Your task to perform on an android device: empty trash in google photos Image 0: 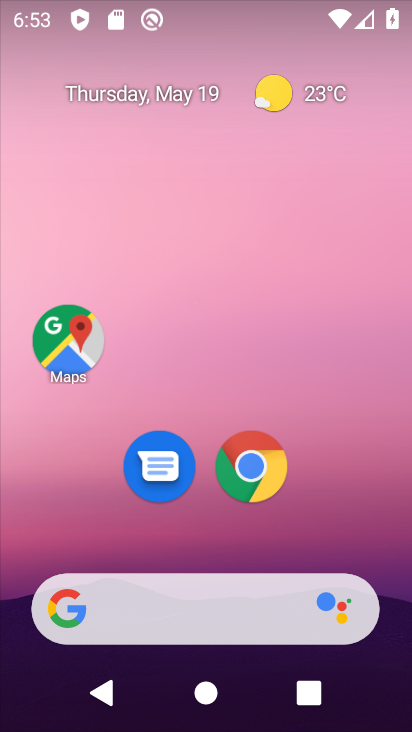
Step 0: drag from (372, 579) to (96, 329)
Your task to perform on an android device: empty trash in google photos Image 1: 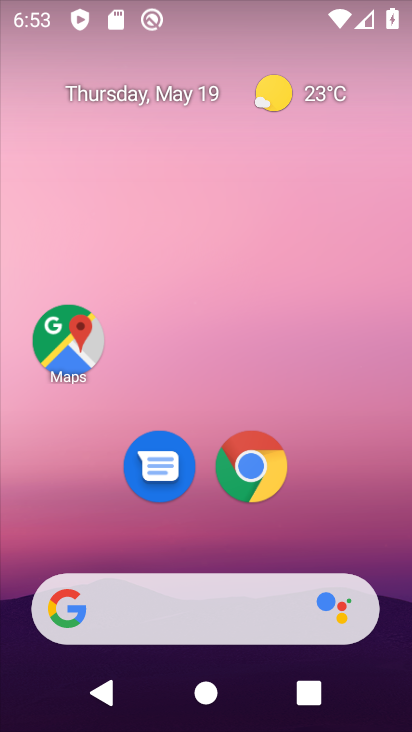
Step 1: drag from (333, 542) to (217, 3)
Your task to perform on an android device: empty trash in google photos Image 2: 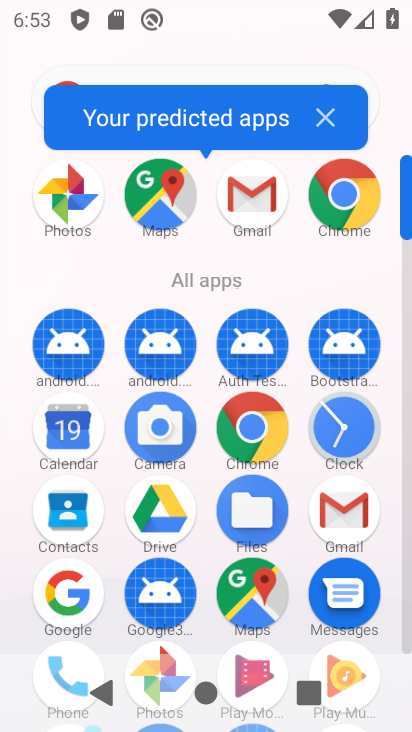
Step 2: drag from (210, 288) to (211, 130)
Your task to perform on an android device: empty trash in google photos Image 3: 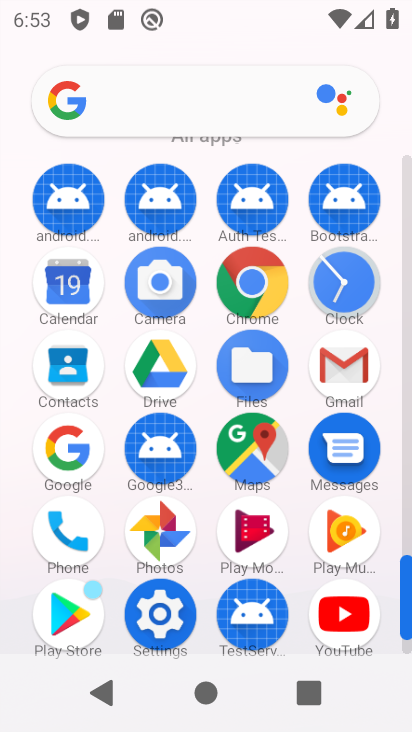
Step 3: click (150, 515)
Your task to perform on an android device: empty trash in google photos Image 4: 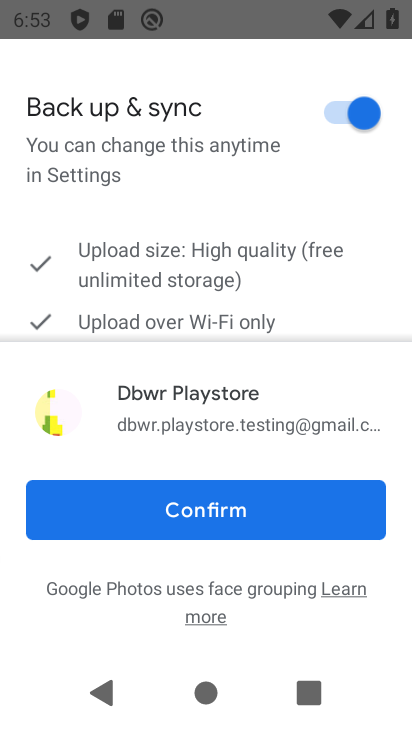
Step 4: click (172, 498)
Your task to perform on an android device: empty trash in google photos Image 5: 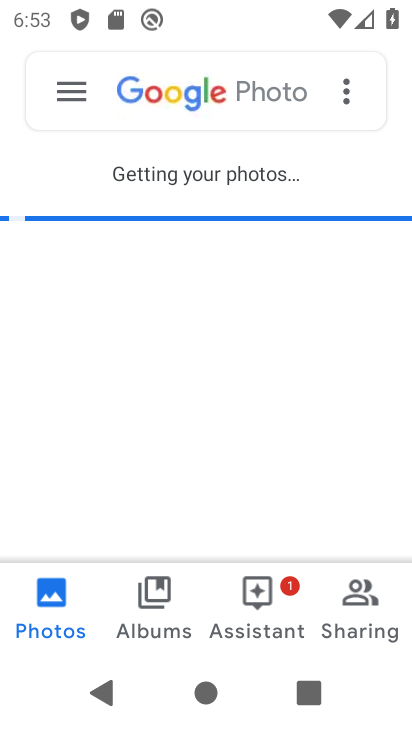
Step 5: click (69, 114)
Your task to perform on an android device: empty trash in google photos Image 6: 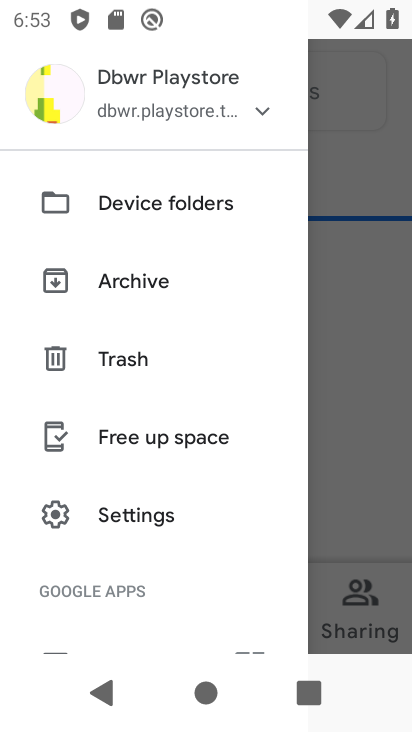
Step 6: click (107, 366)
Your task to perform on an android device: empty trash in google photos Image 7: 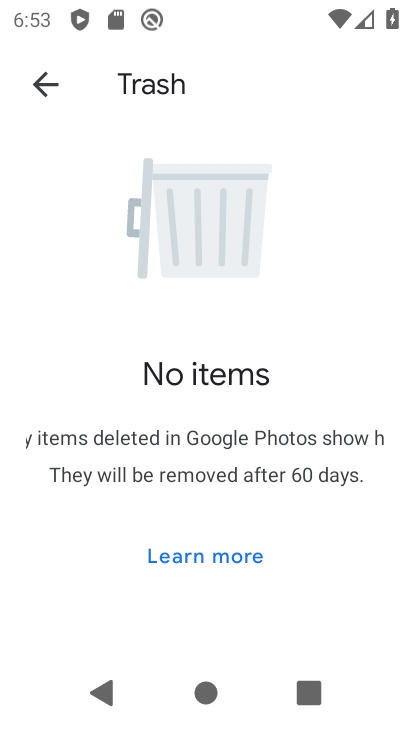
Step 7: task complete